Your task to perform on an android device: toggle notifications settings in the gmail app Image 0: 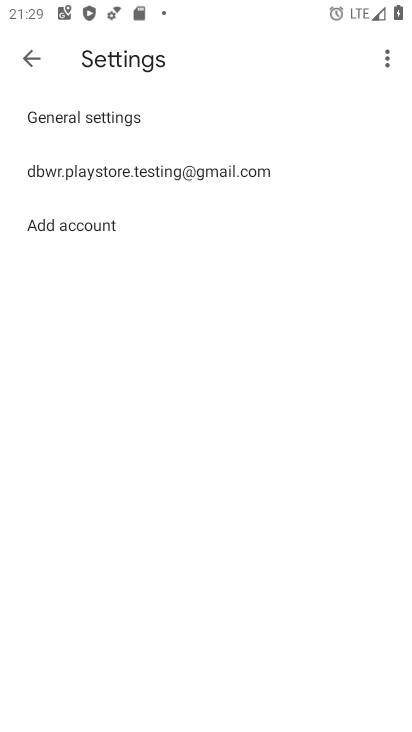
Step 0: press back button
Your task to perform on an android device: toggle notifications settings in the gmail app Image 1: 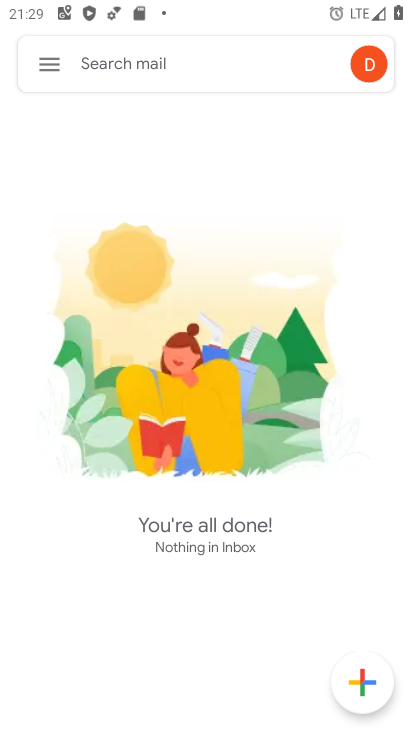
Step 1: press back button
Your task to perform on an android device: toggle notifications settings in the gmail app Image 2: 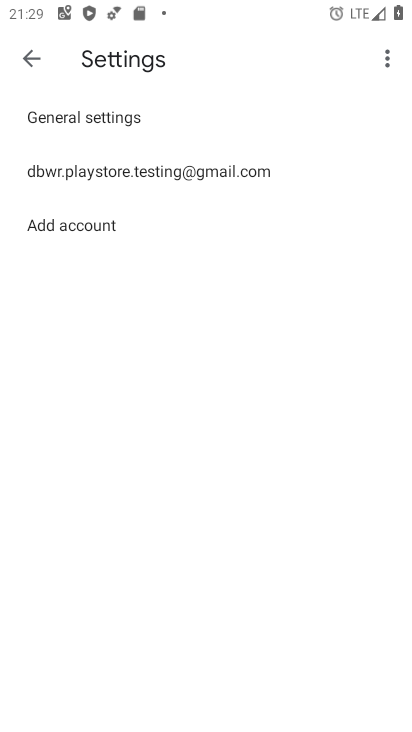
Step 2: press home button
Your task to perform on an android device: toggle notifications settings in the gmail app Image 3: 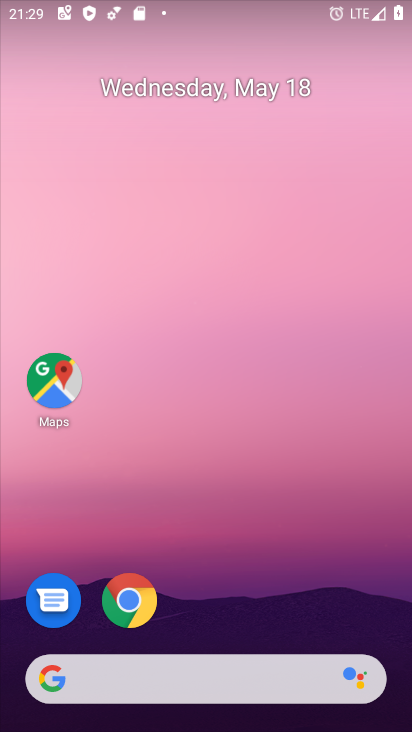
Step 3: drag from (248, 650) to (299, 214)
Your task to perform on an android device: toggle notifications settings in the gmail app Image 4: 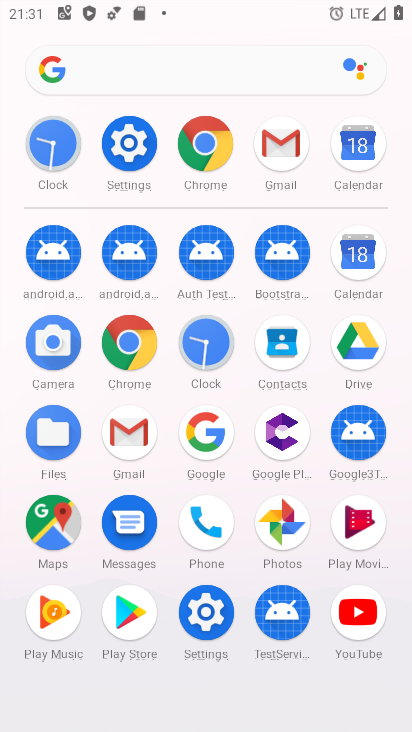
Step 4: click (276, 132)
Your task to perform on an android device: toggle notifications settings in the gmail app Image 5: 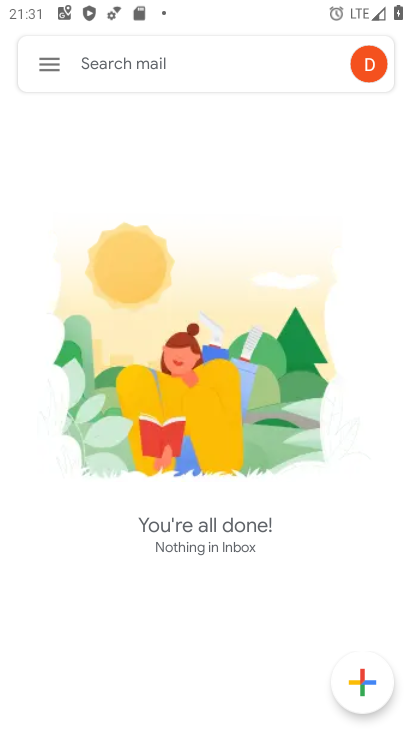
Step 5: click (55, 54)
Your task to perform on an android device: toggle notifications settings in the gmail app Image 6: 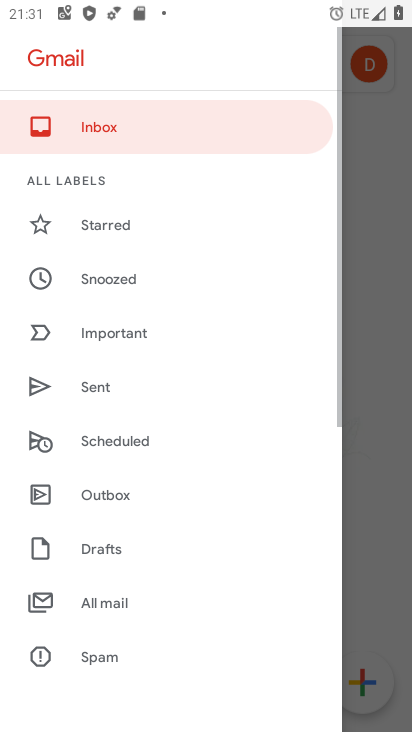
Step 6: drag from (195, 672) to (268, 84)
Your task to perform on an android device: toggle notifications settings in the gmail app Image 7: 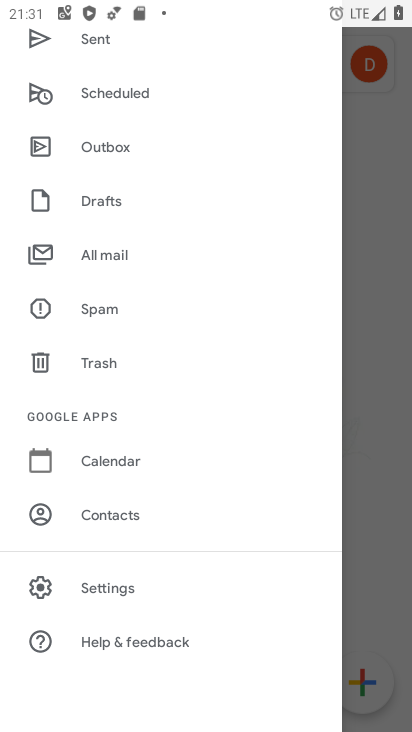
Step 7: click (110, 586)
Your task to perform on an android device: toggle notifications settings in the gmail app Image 8: 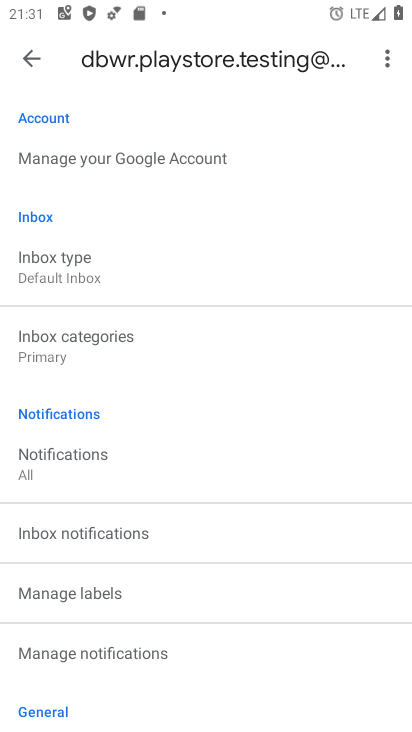
Step 8: drag from (125, 684) to (253, 240)
Your task to perform on an android device: toggle notifications settings in the gmail app Image 9: 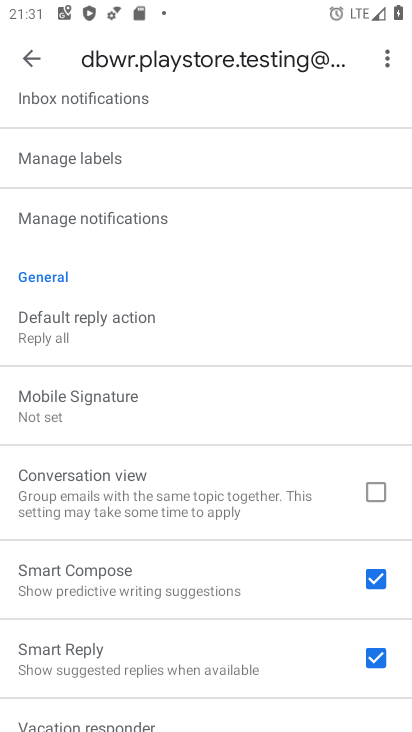
Step 9: click (96, 220)
Your task to perform on an android device: toggle notifications settings in the gmail app Image 10: 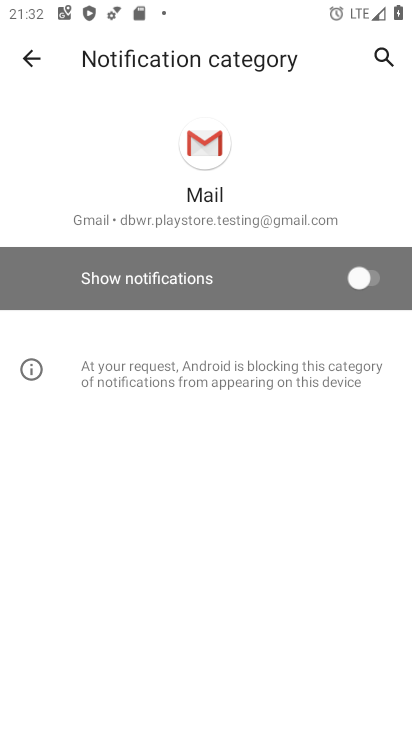
Step 10: click (356, 270)
Your task to perform on an android device: toggle notifications settings in the gmail app Image 11: 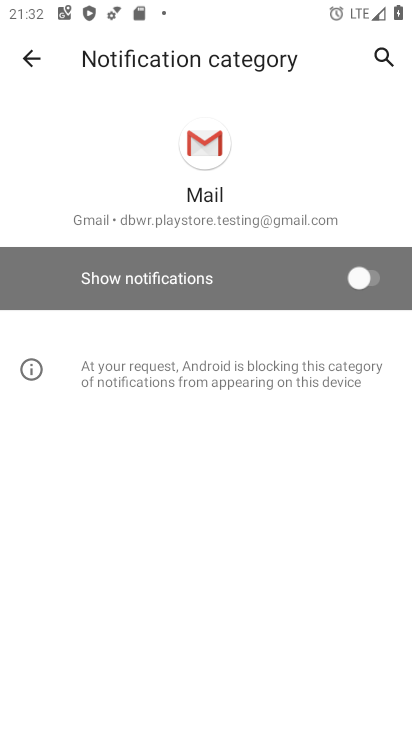
Step 11: task complete